Your task to perform on an android device: turn vacation reply on in the gmail app Image 0: 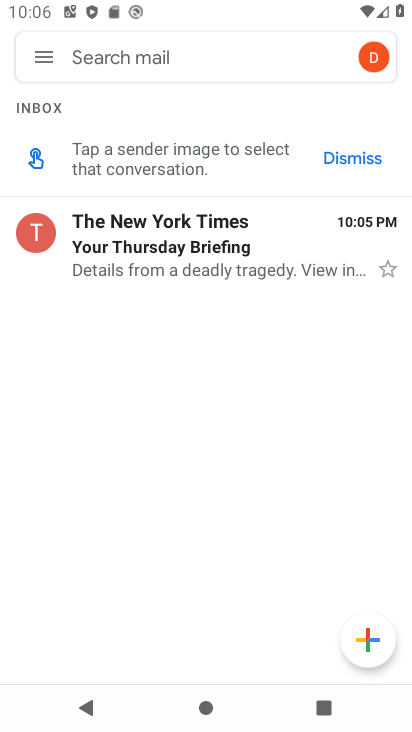
Step 0: press home button
Your task to perform on an android device: turn vacation reply on in the gmail app Image 1: 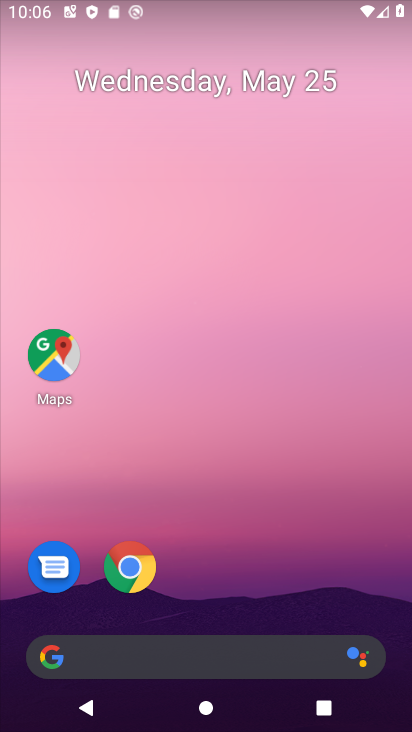
Step 1: drag from (278, 573) to (217, 222)
Your task to perform on an android device: turn vacation reply on in the gmail app Image 2: 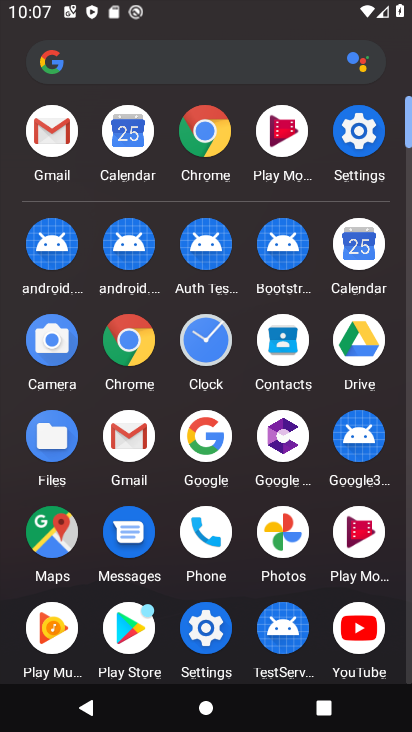
Step 2: click (67, 123)
Your task to perform on an android device: turn vacation reply on in the gmail app Image 3: 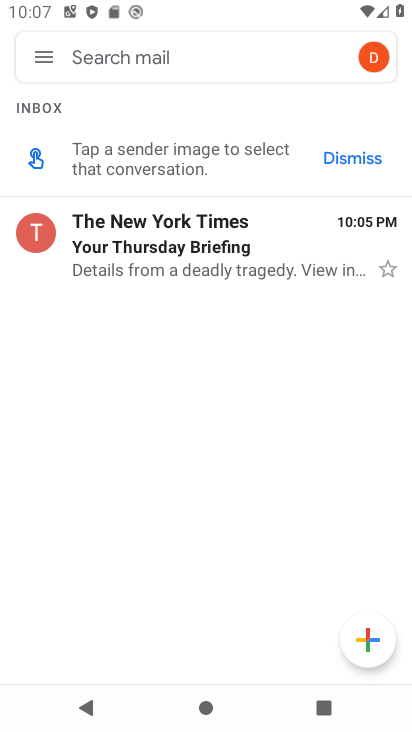
Step 3: click (43, 60)
Your task to perform on an android device: turn vacation reply on in the gmail app Image 4: 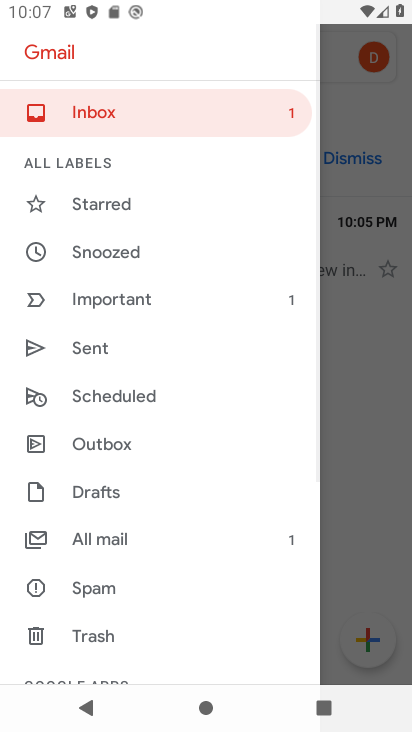
Step 4: drag from (121, 591) to (183, 149)
Your task to perform on an android device: turn vacation reply on in the gmail app Image 5: 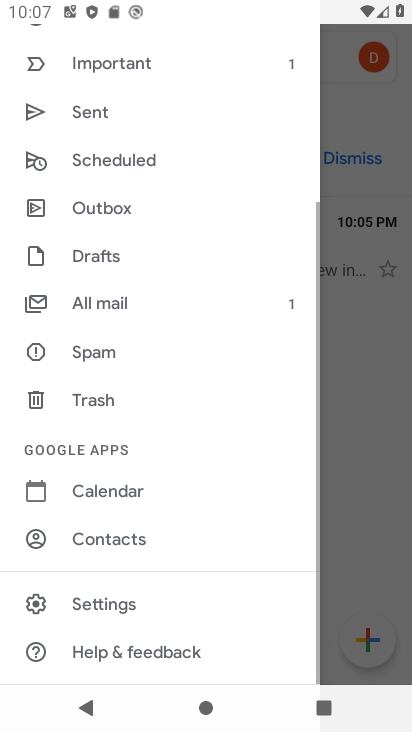
Step 5: click (129, 591)
Your task to perform on an android device: turn vacation reply on in the gmail app Image 6: 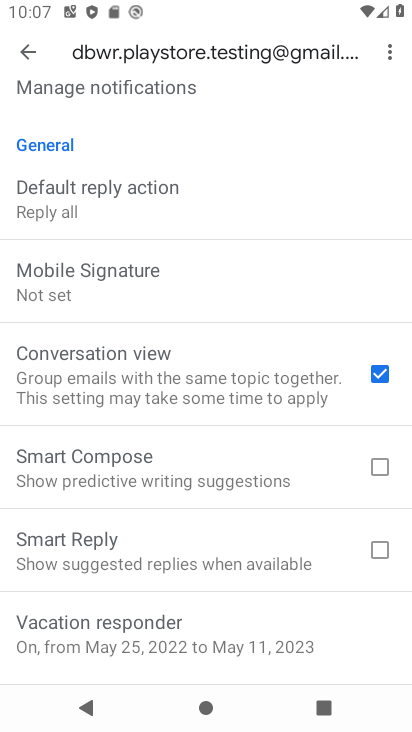
Step 6: click (196, 622)
Your task to perform on an android device: turn vacation reply on in the gmail app Image 7: 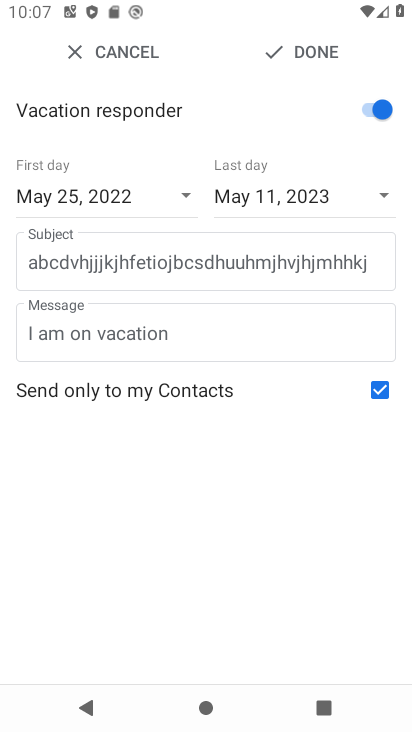
Step 7: click (320, 43)
Your task to perform on an android device: turn vacation reply on in the gmail app Image 8: 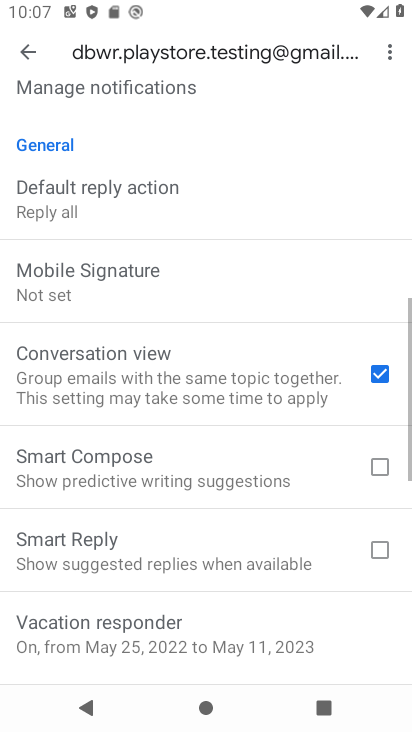
Step 8: task complete